Your task to perform on an android device: Turn off the flashlight Image 0: 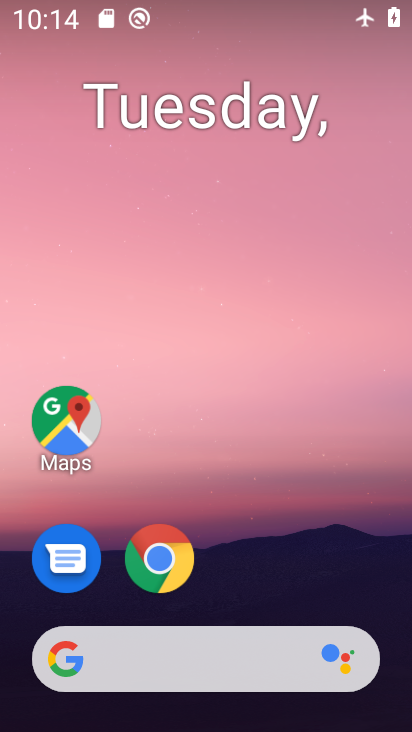
Step 0: drag from (254, 7) to (232, 438)
Your task to perform on an android device: Turn off the flashlight Image 1: 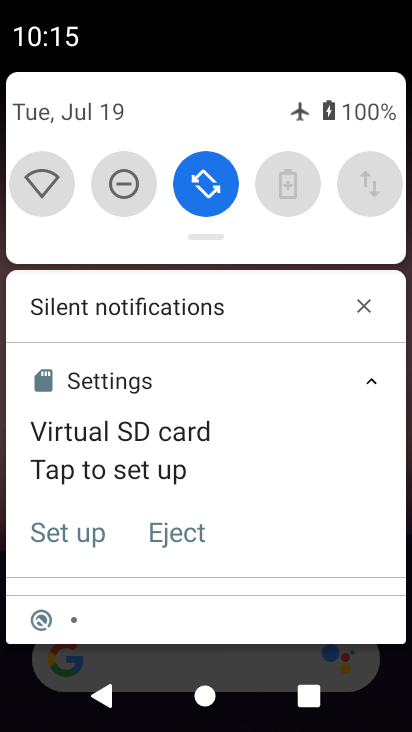
Step 1: drag from (250, 114) to (252, 367)
Your task to perform on an android device: Turn off the flashlight Image 2: 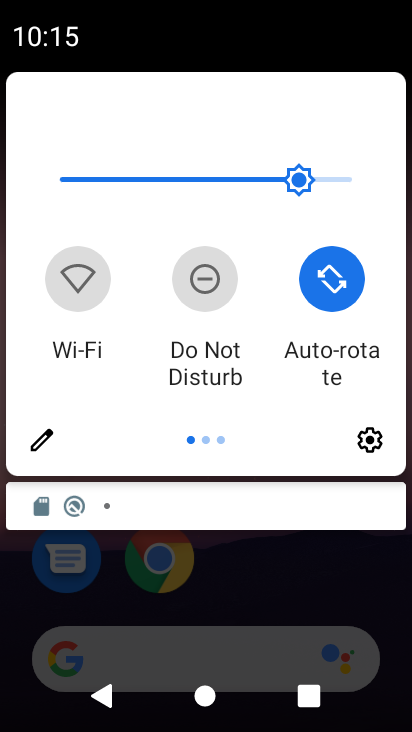
Step 2: click (36, 452)
Your task to perform on an android device: Turn off the flashlight Image 3: 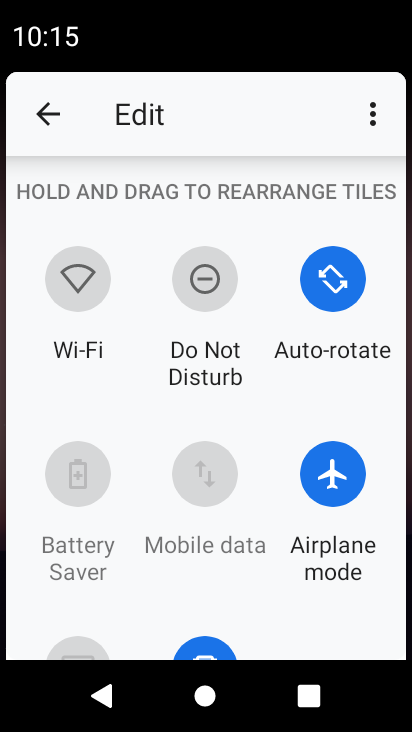
Step 3: task complete